Your task to perform on an android device: turn on improve location accuracy Image 0: 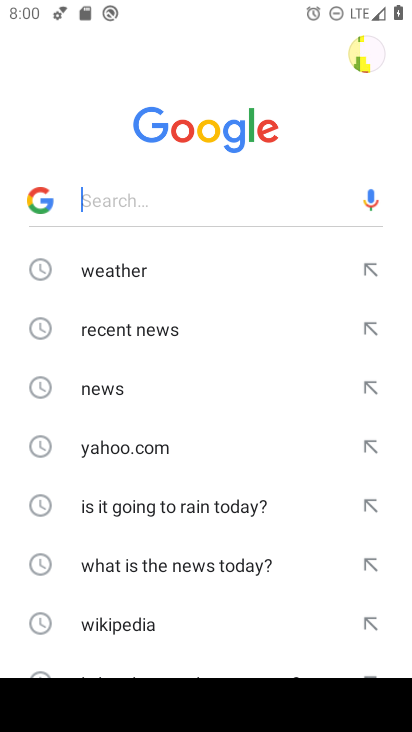
Step 0: press home button
Your task to perform on an android device: turn on improve location accuracy Image 1: 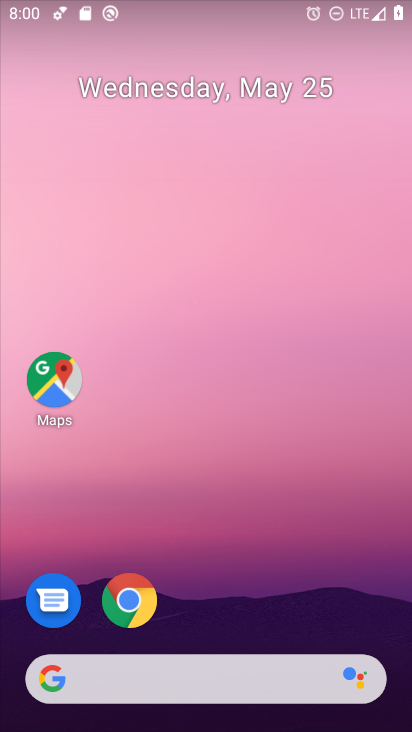
Step 1: drag from (304, 537) to (245, 140)
Your task to perform on an android device: turn on improve location accuracy Image 2: 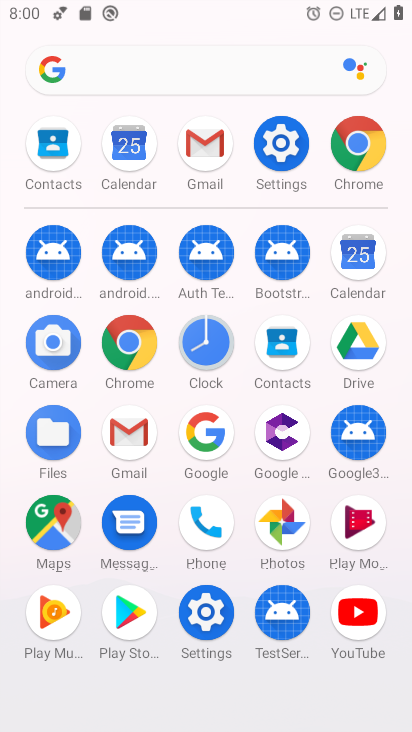
Step 2: click (298, 130)
Your task to perform on an android device: turn on improve location accuracy Image 3: 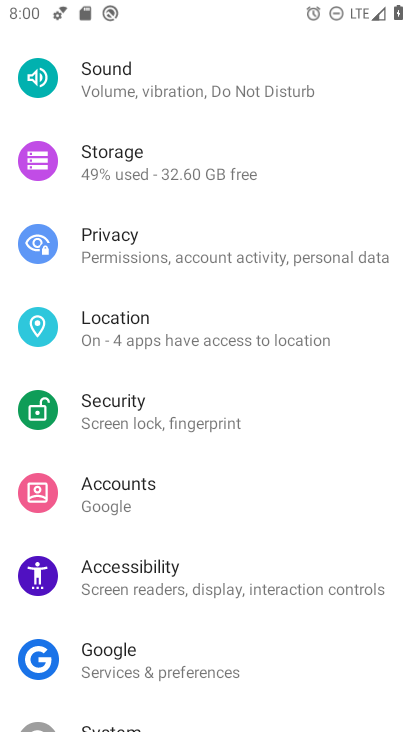
Step 3: click (198, 354)
Your task to perform on an android device: turn on improve location accuracy Image 4: 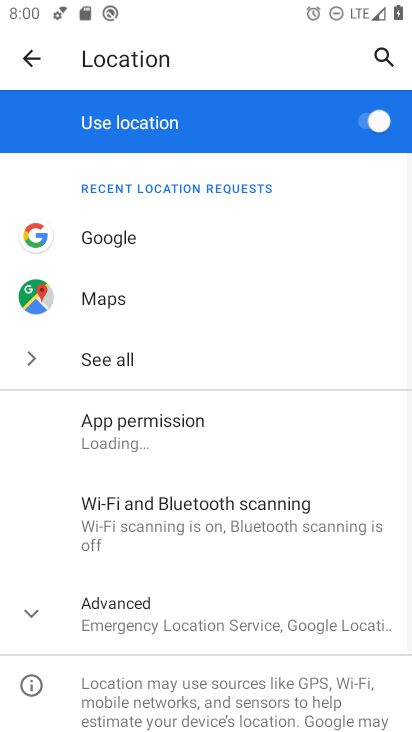
Step 4: click (211, 630)
Your task to perform on an android device: turn on improve location accuracy Image 5: 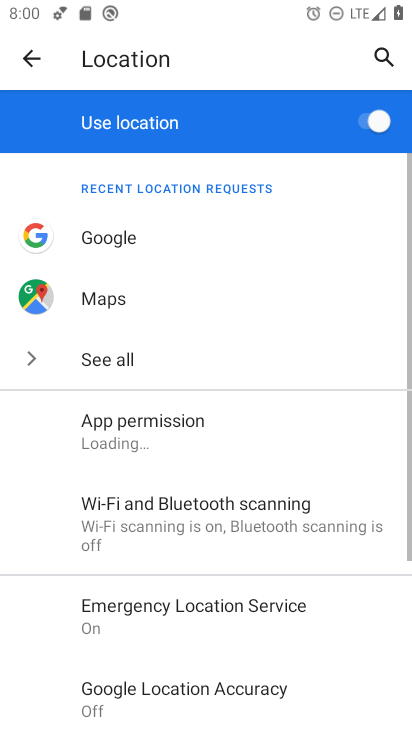
Step 5: drag from (208, 628) to (205, 211)
Your task to perform on an android device: turn on improve location accuracy Image 6: 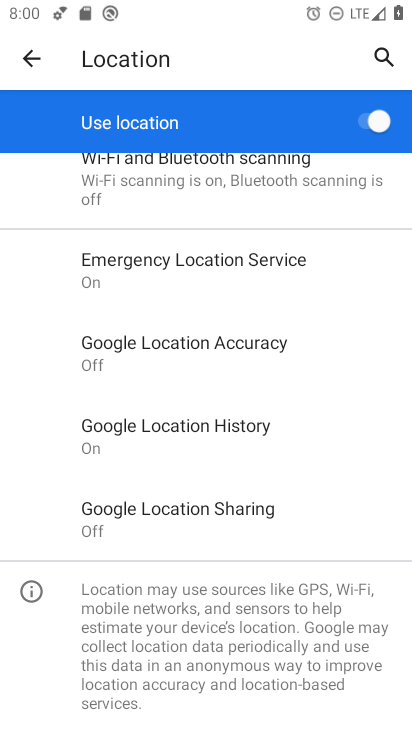
Step 6: click (251, 356)
Your task to perform on an android device: turn on improve location accuracy Image 7: 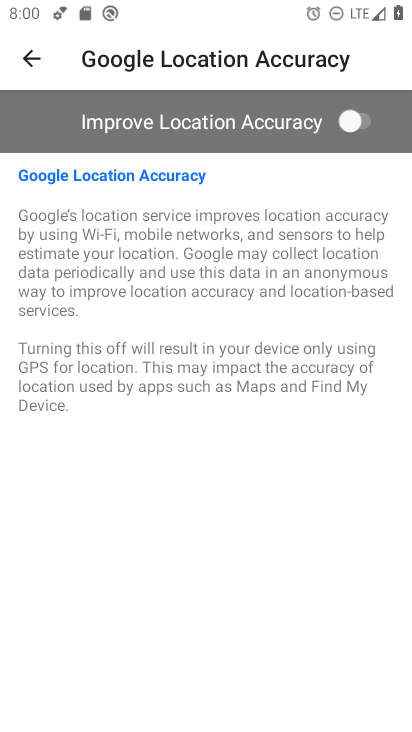
Step 7: click (364, 116)
Your task to perform on an android device: turn on improve location accuracy Image 8: 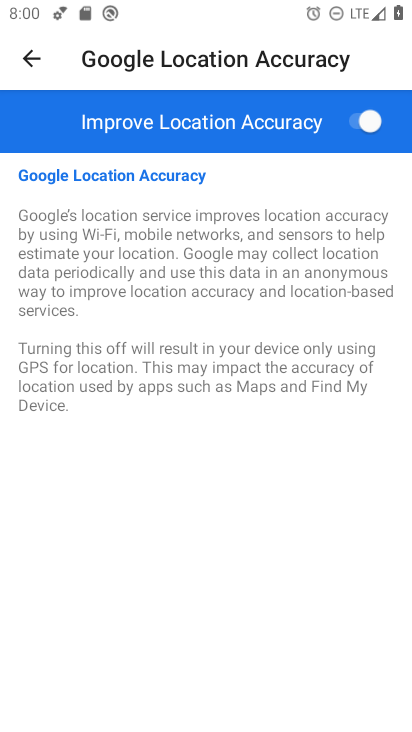
Step 8: task complete